Your task to perform on an android device: View the shopping cart on target. Add "asus rog" to the cart on target Image 0: 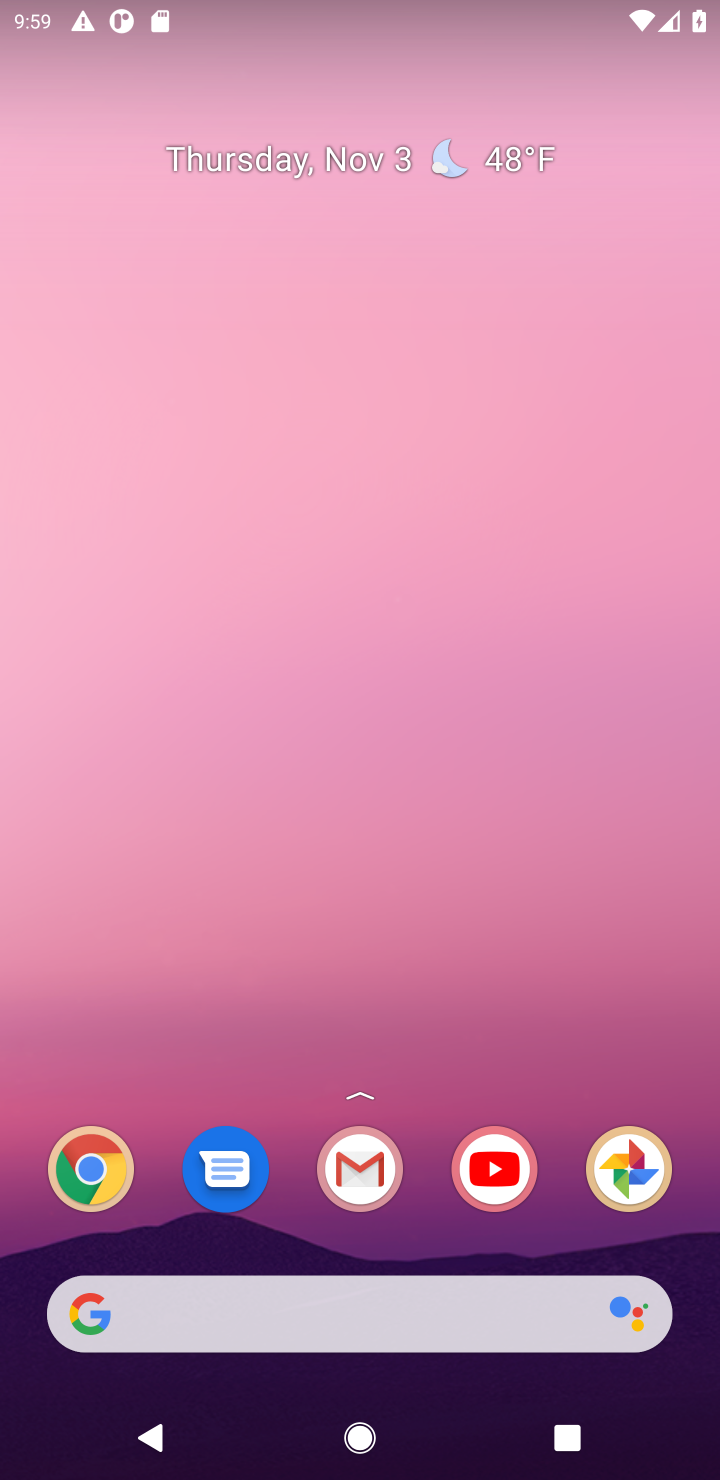
Step 0: drag from (436, 1238) to (392, 130)
Your task to perform on an android device: View the shopping cart on target. Add "asus rog" to the cart on target Image 1: 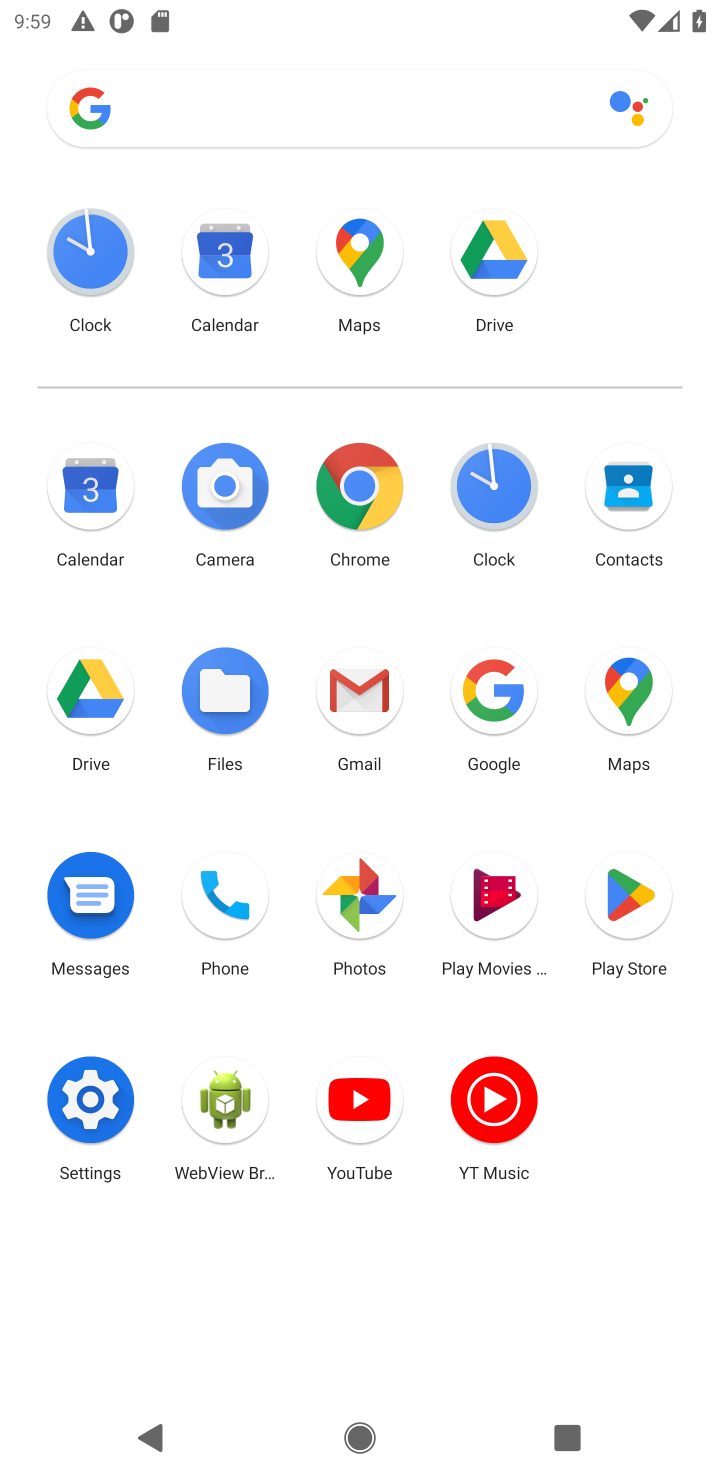
Step 1: click (376, 490)
Your task to perform on an android device: View the shopping cart on target. Add "asus rog" to the cart on target Image 2: 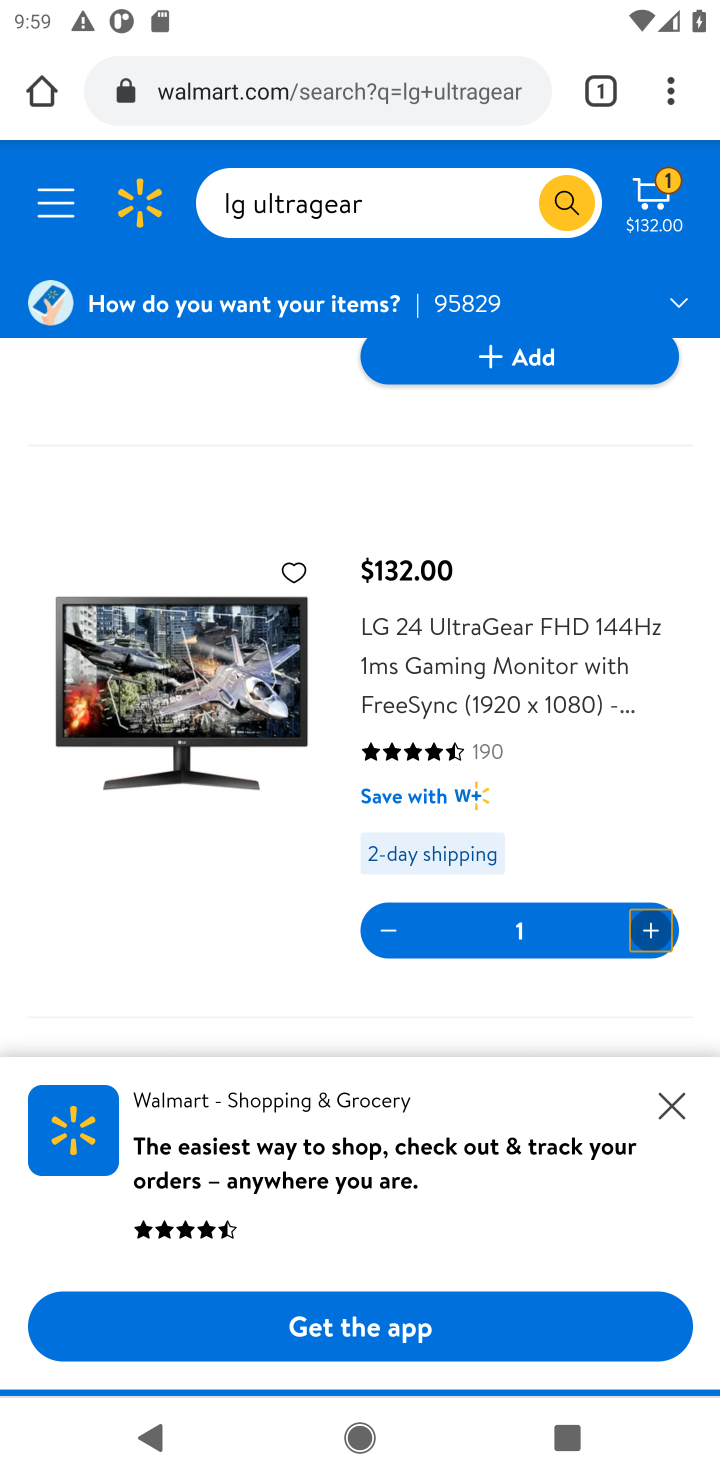
Step 2: click (353, 87)
Your task to perform on an android device: View the shopping cart on target. Add "asus rog" to the cart on target Image 3: 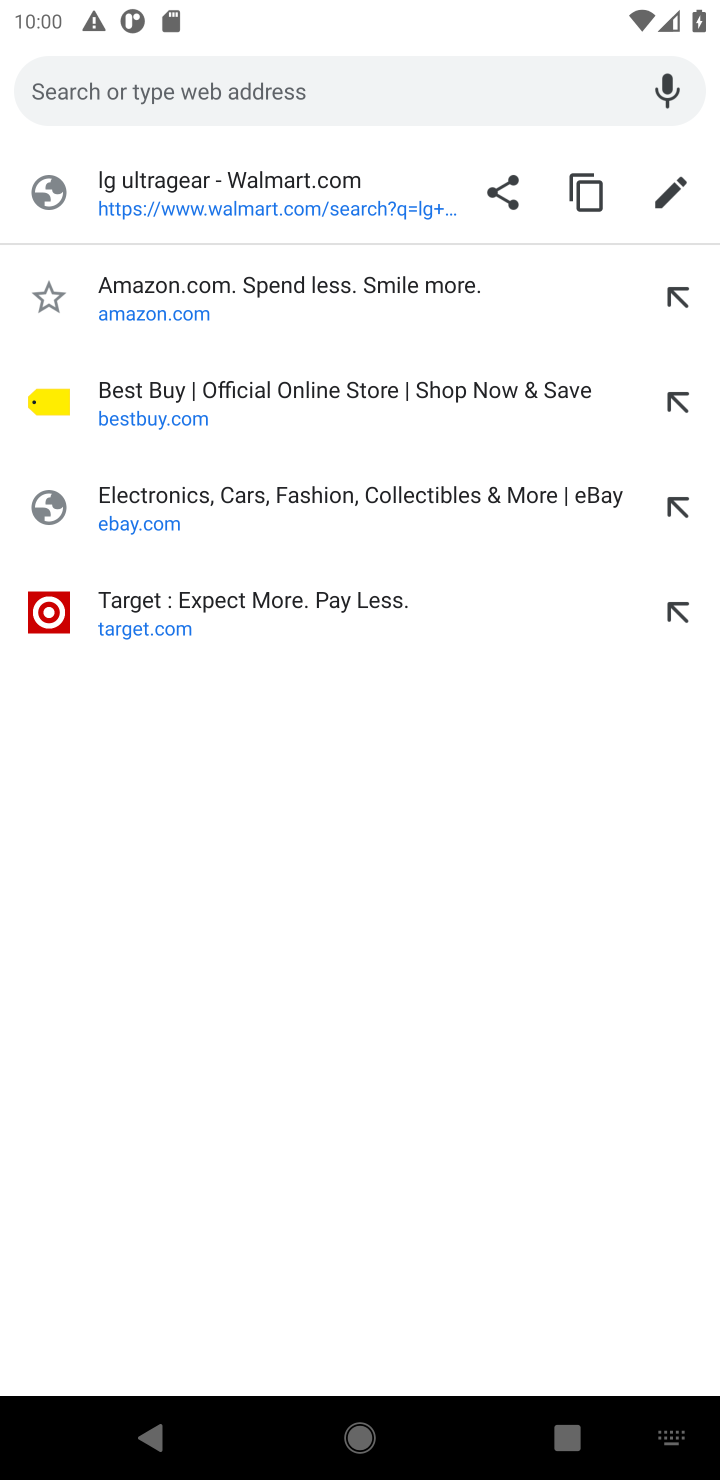
Step 3: type "target.com"
Your task to perform on an android device: View the shopping cart on target. Add "asus rog" to the cart on target Image 4: 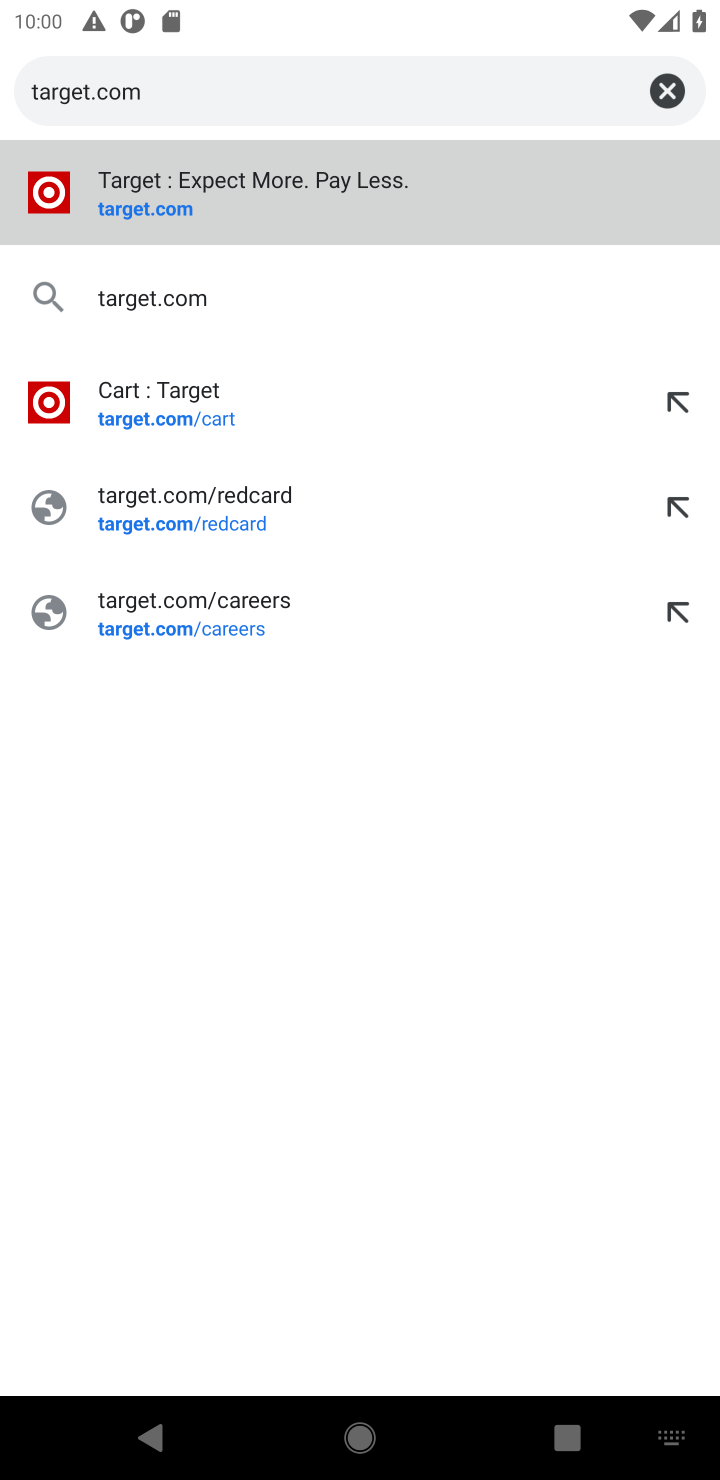
Step 4: press enter
Your task to perform on an android device: View the shopping cart on target. Add "asus rog" to the cart on target Image 5: 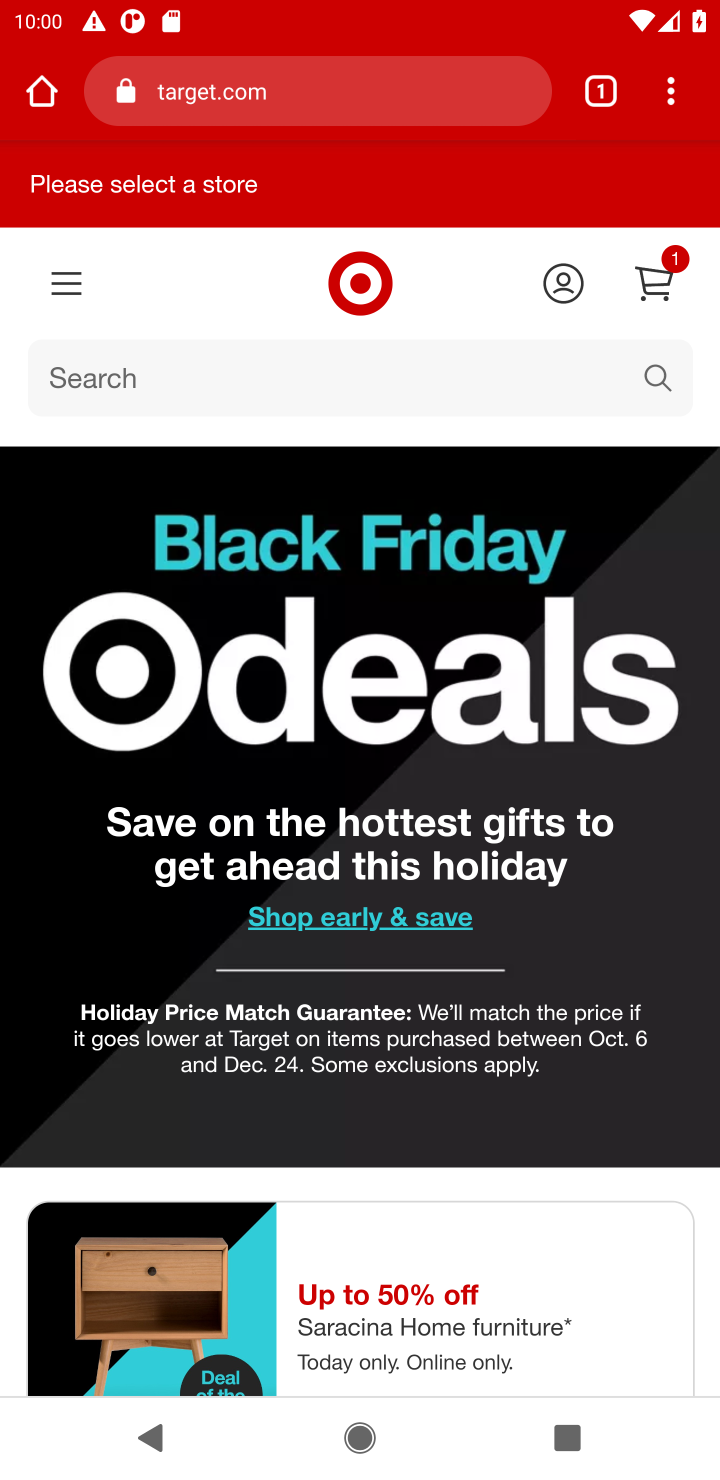
Step 5: click (674, 274)
Your task to perform on an android device: View the shopping cart on target. Add "asus rog" to the cart on target Image 6: 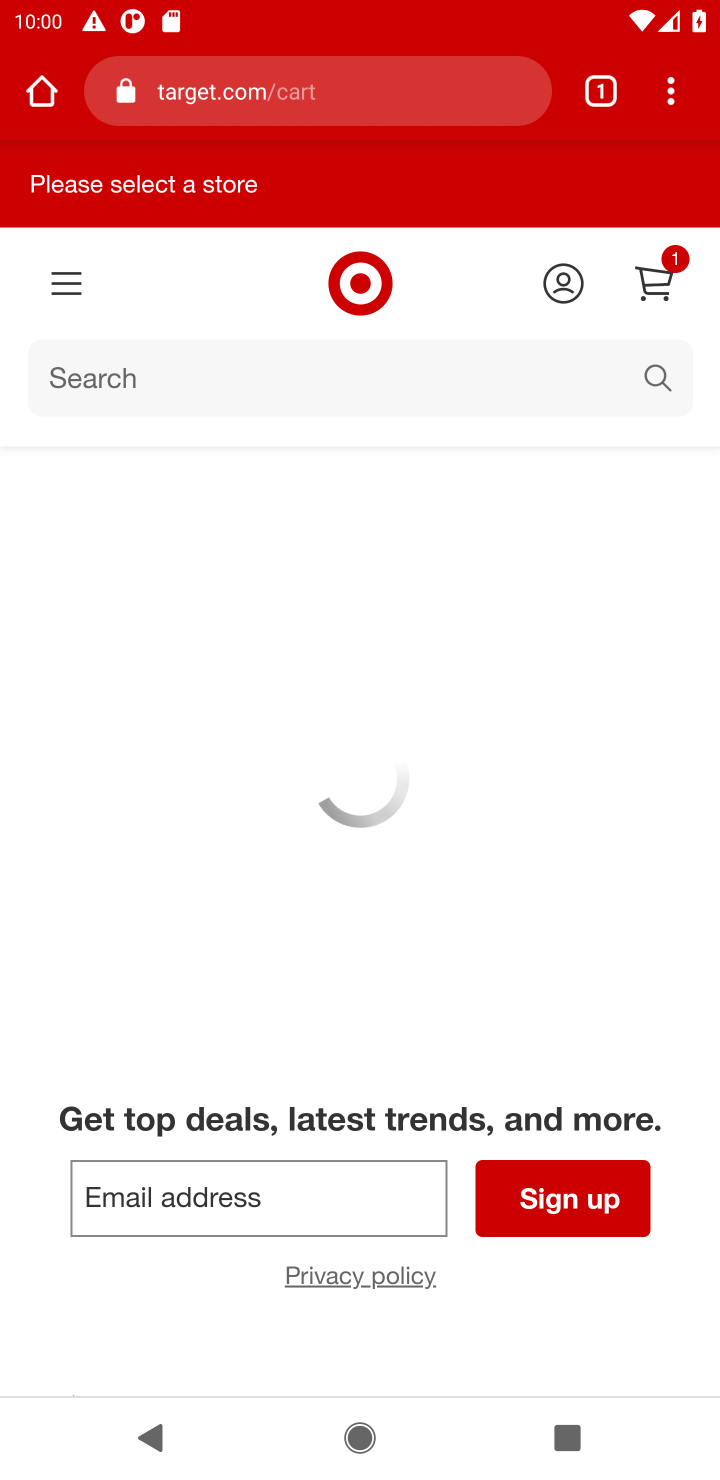
Step 6: click (463, 393)
Your task to perform on an android device: View the shopping cart on target. Add "asus rog" to the cart on target Image 7: 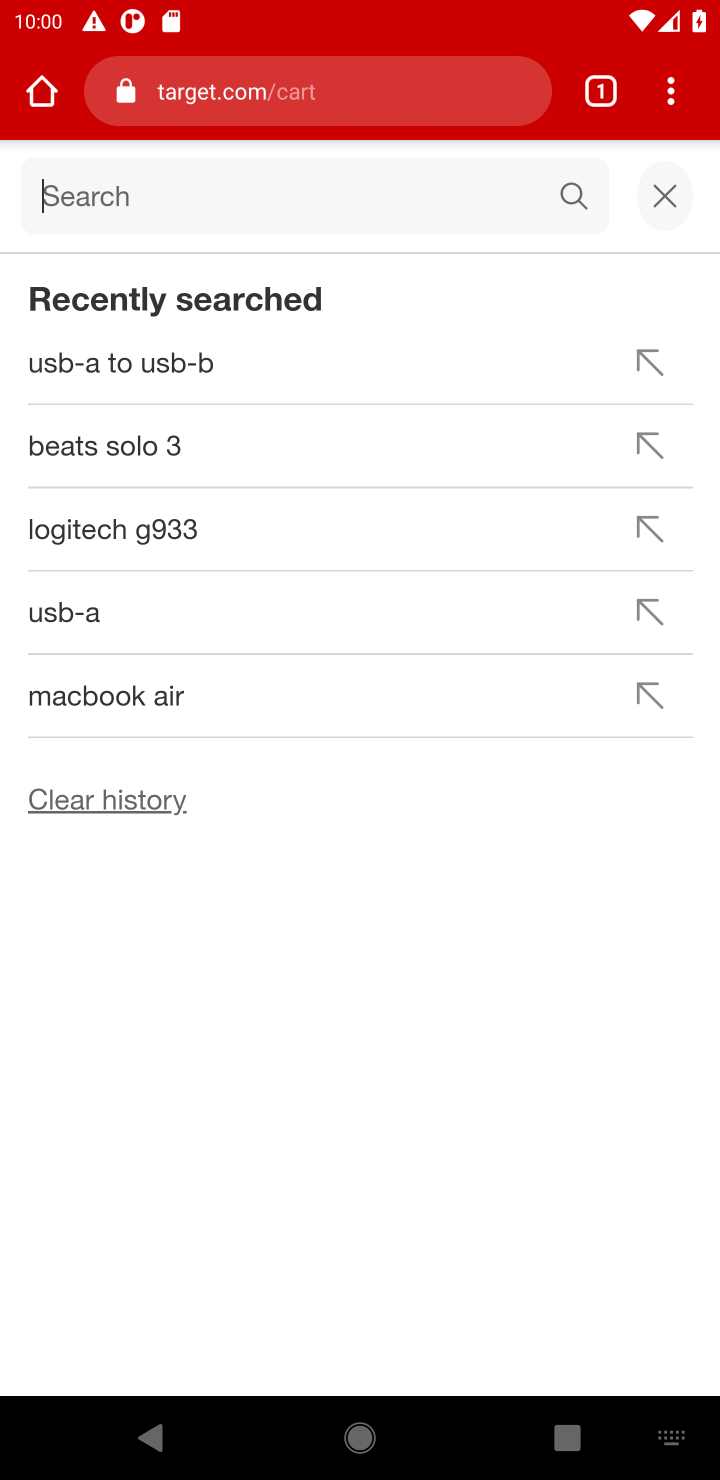
Step 7: type "asus rog"
Your task to perform on an android device: View the shopping cart on target. Add "asus rog" to the cart on target Image 8: 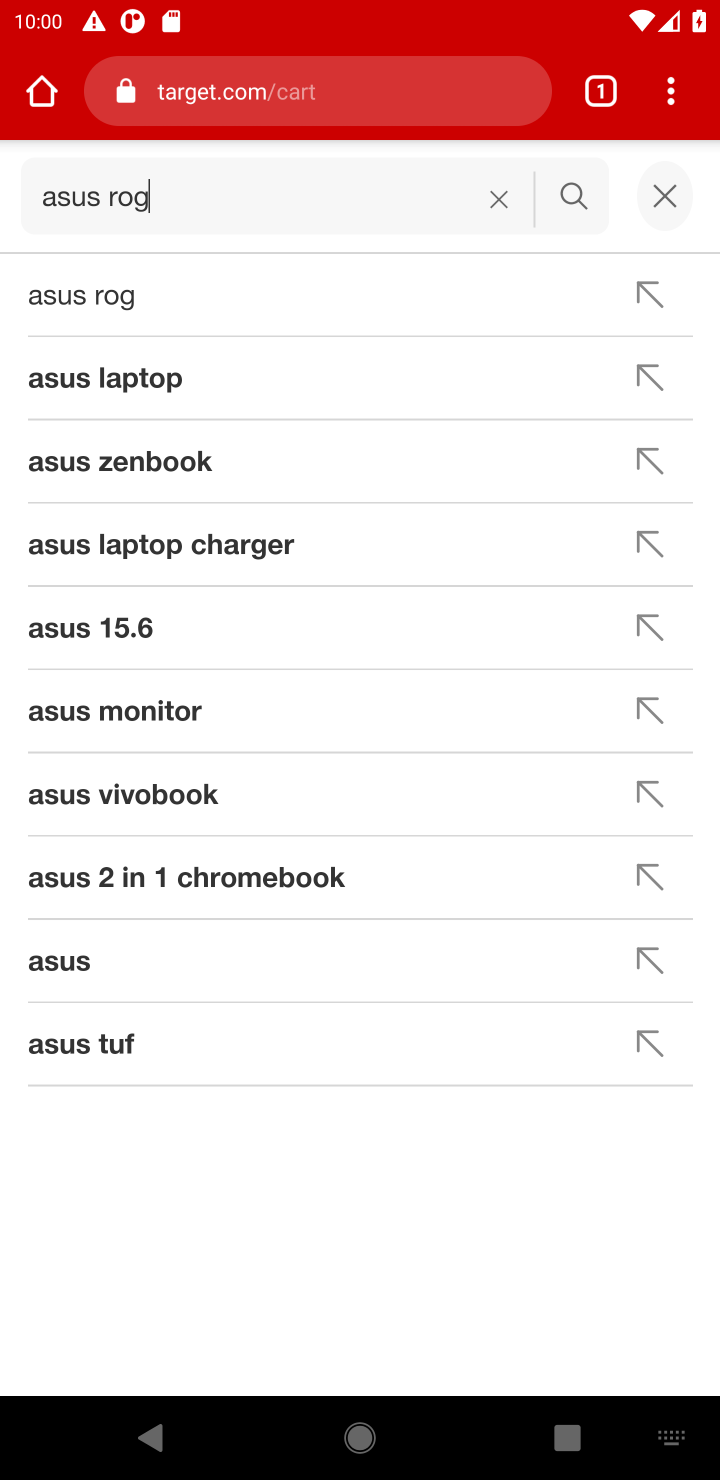
Step 8: press enter
Your task to perform on an android device: View the shopping cart on target. Add "asus rog" to the cart on target Image 9: 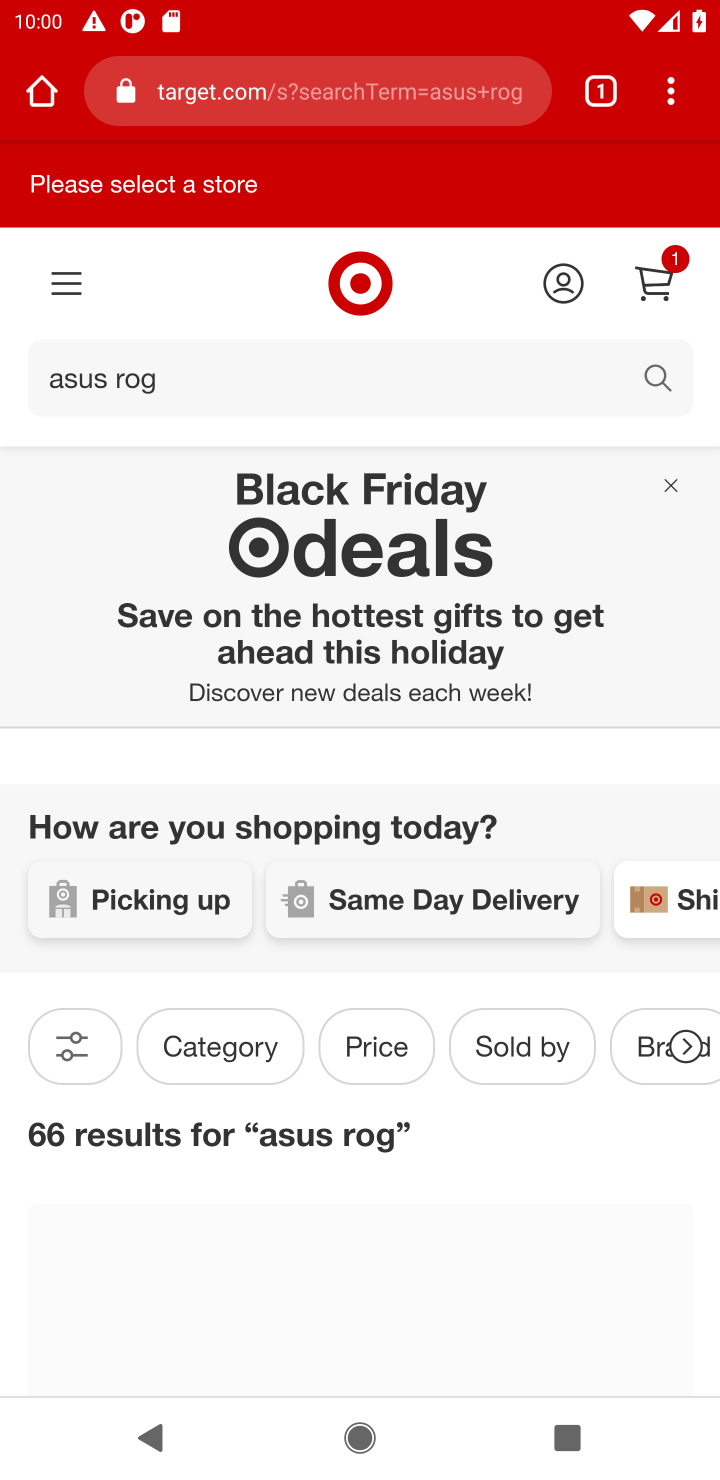
Step 9: drag from (387, 1097) to (342, 398)
Your task to perform on an android device: View the shopping cart on target. Add "asus rog" to the cart on target Image 10: 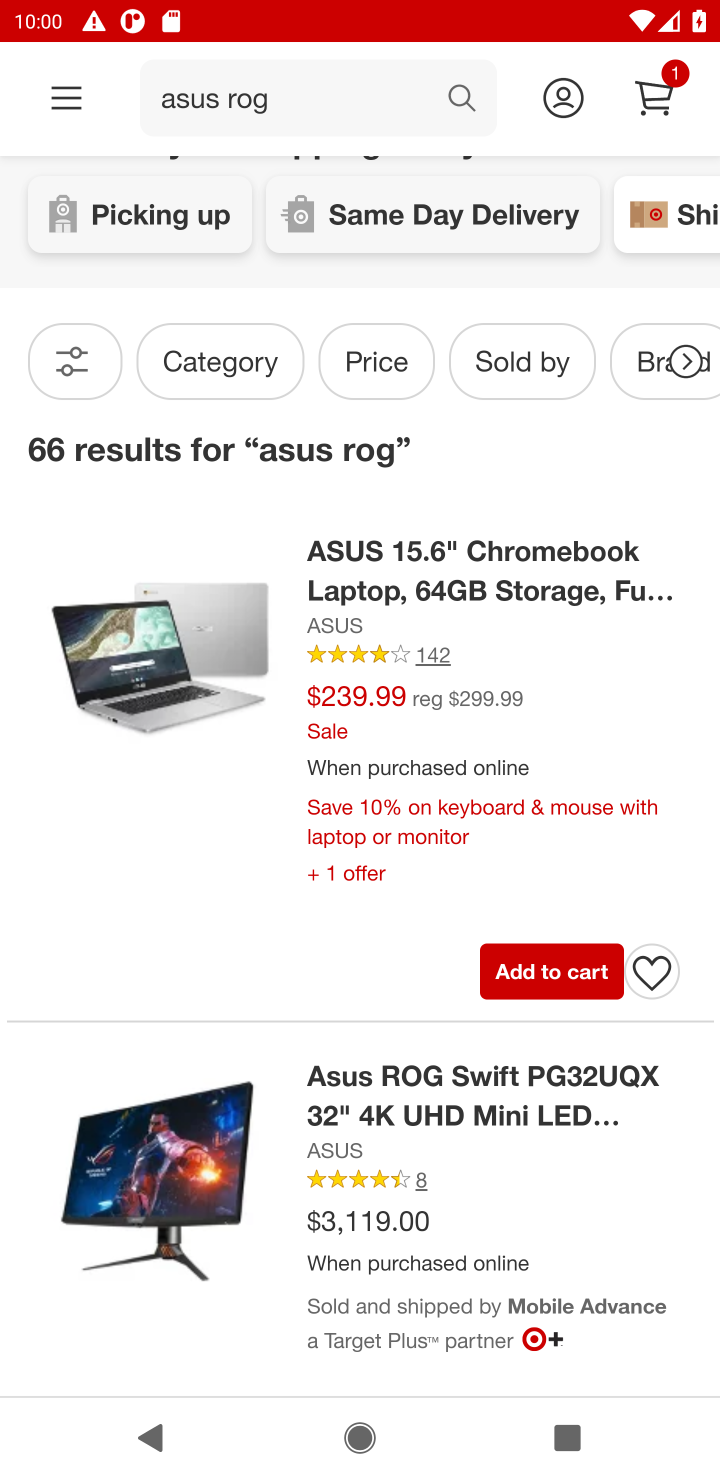
Step 10: drag from (527, 1255) to (579, 800)
Your task to perform on an android device: View the shopping cart on target. Add "asus rog" to the cart on target Image 11: 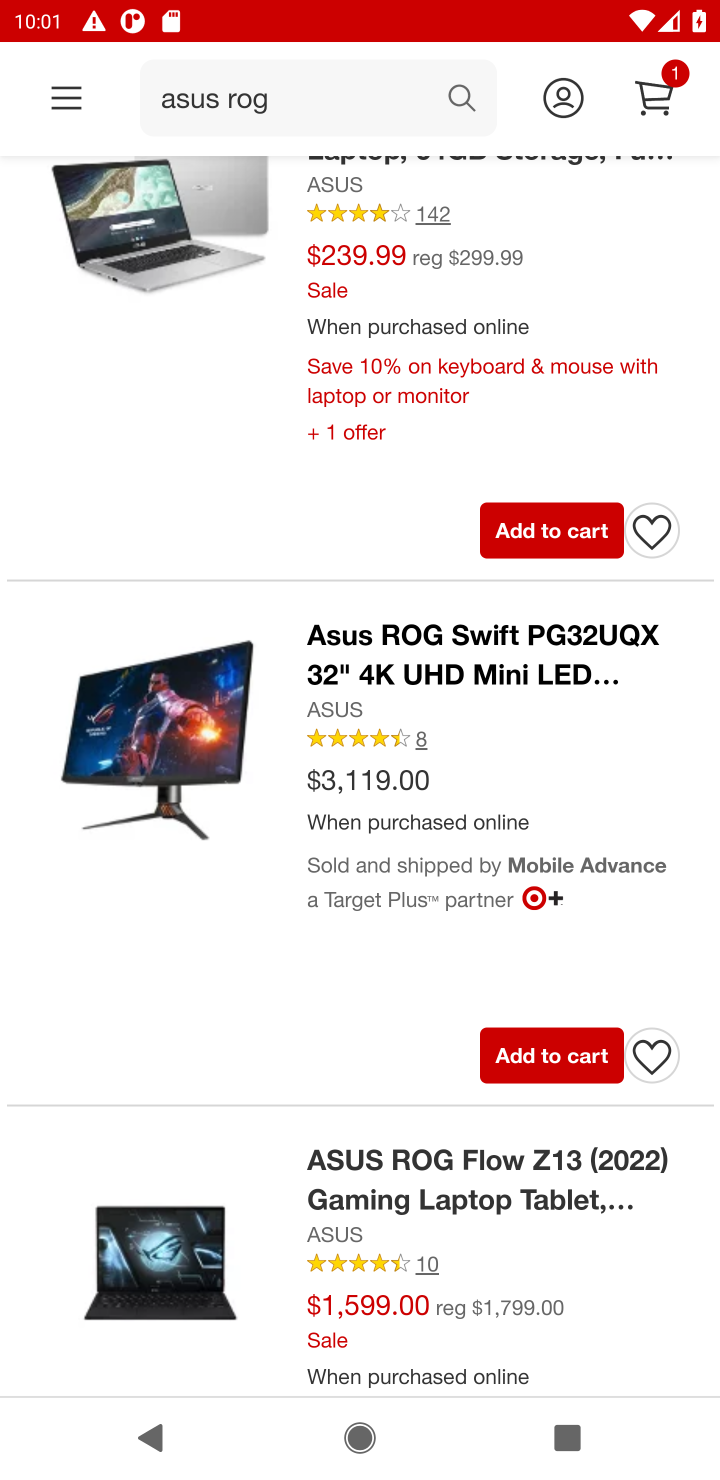
Step 11: click (562, 1067)
Your task to perform on an android device: View the shopping cart on target. Add "asus rog" to the cart on target Image 12: 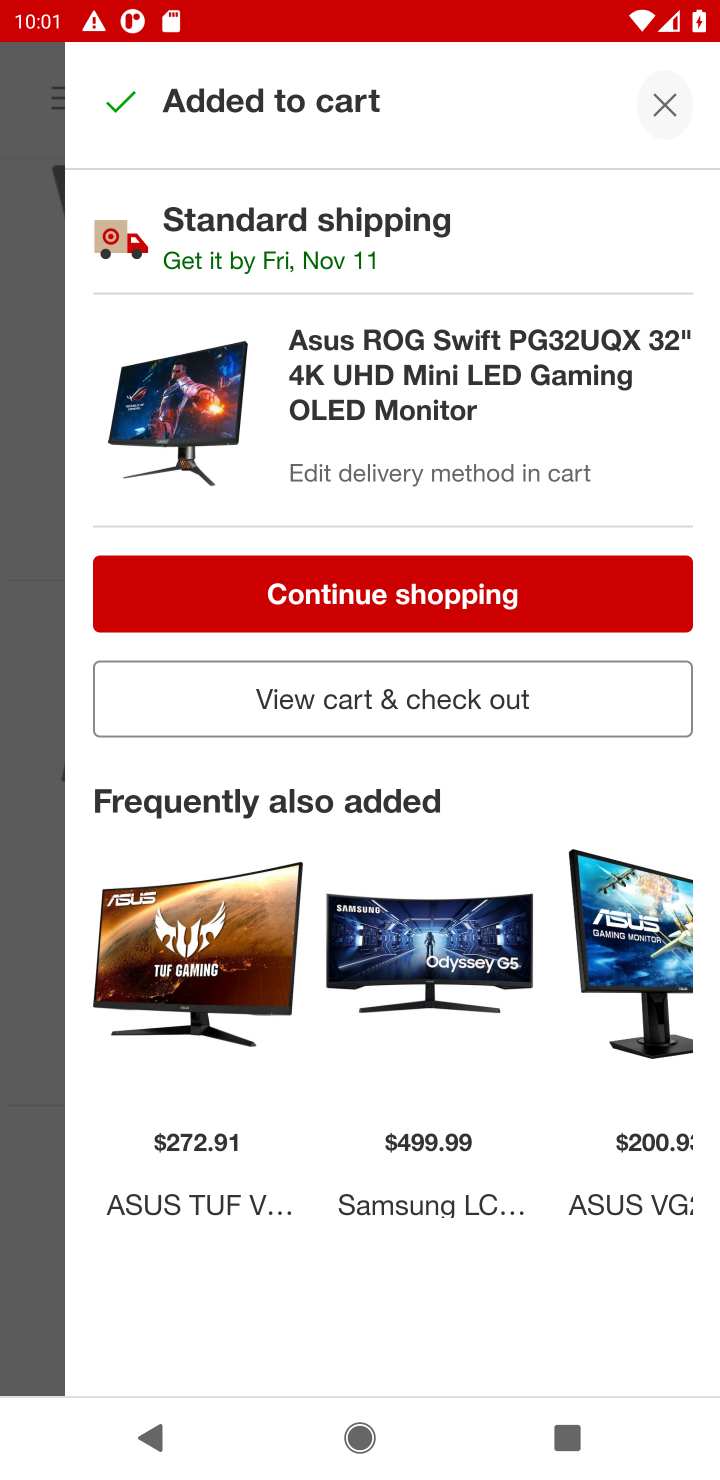
Step 12: task complete